Your task to perform on an android device: What is the recent news? Image 0: 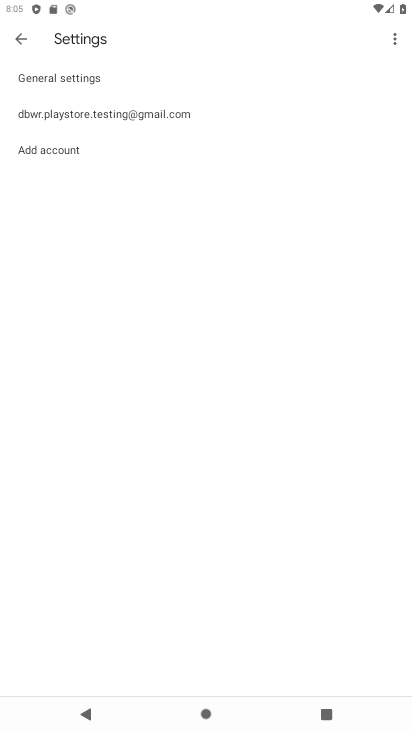
Step 0: press home button
Your task to perform on an android device: What is the recent news? Image 1: 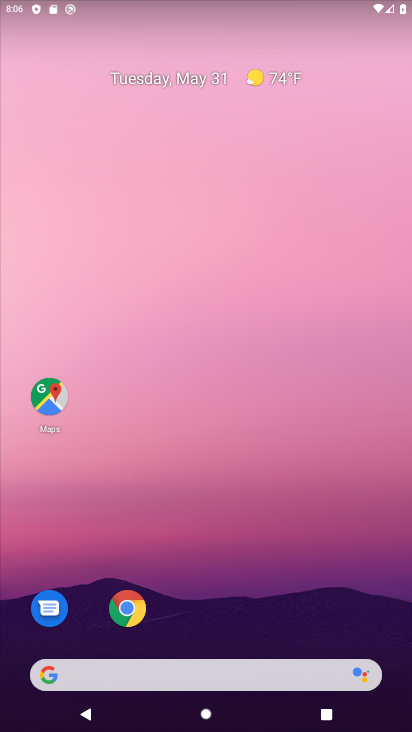
Step 1: click (257, 672)
Your task to perform on an android device: What is the recent news? Image 2: 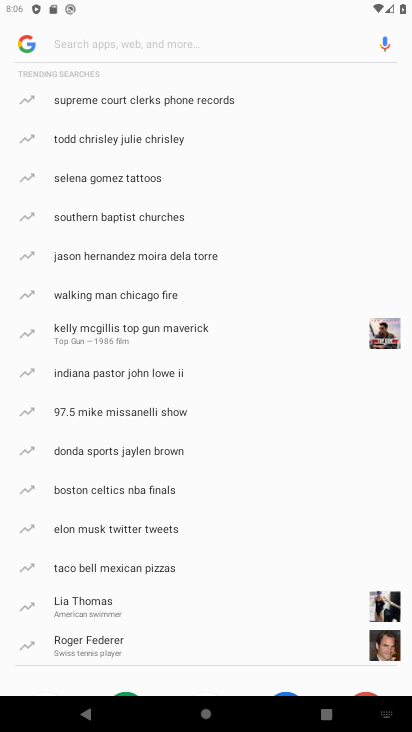
Step 2: type "news"
Your task to perform on an android device: What is the recent news? Image 3: 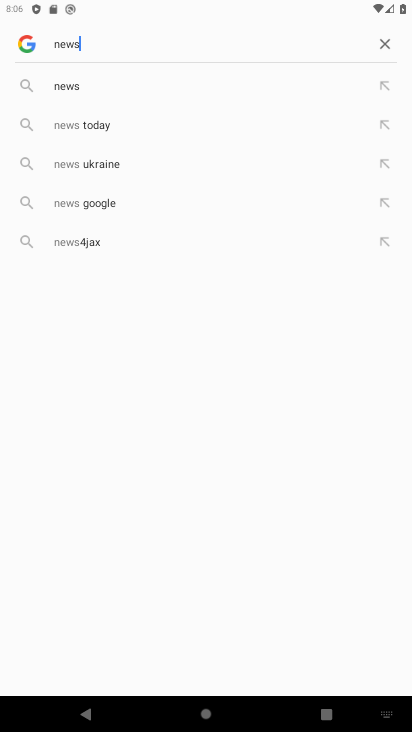
Step 3: click (92, 83)
Your task to perform on an android device: What is the recent news? Image 4: 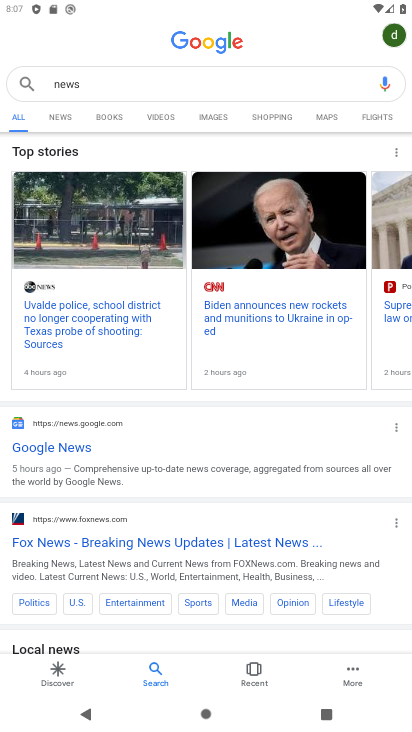
Step 4: click (27, 113)
Your task to perform on an android device: What is the recent news? Image 5: 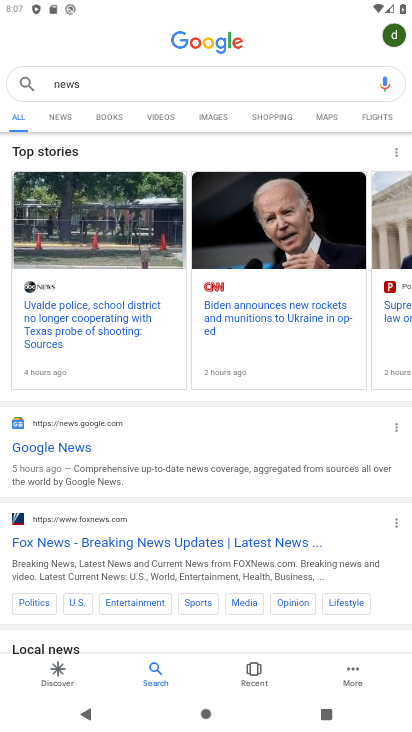
Step 5: task complete